Your task to perform on an android device: Show me the best rated power washer on Home Depot. Image 0: 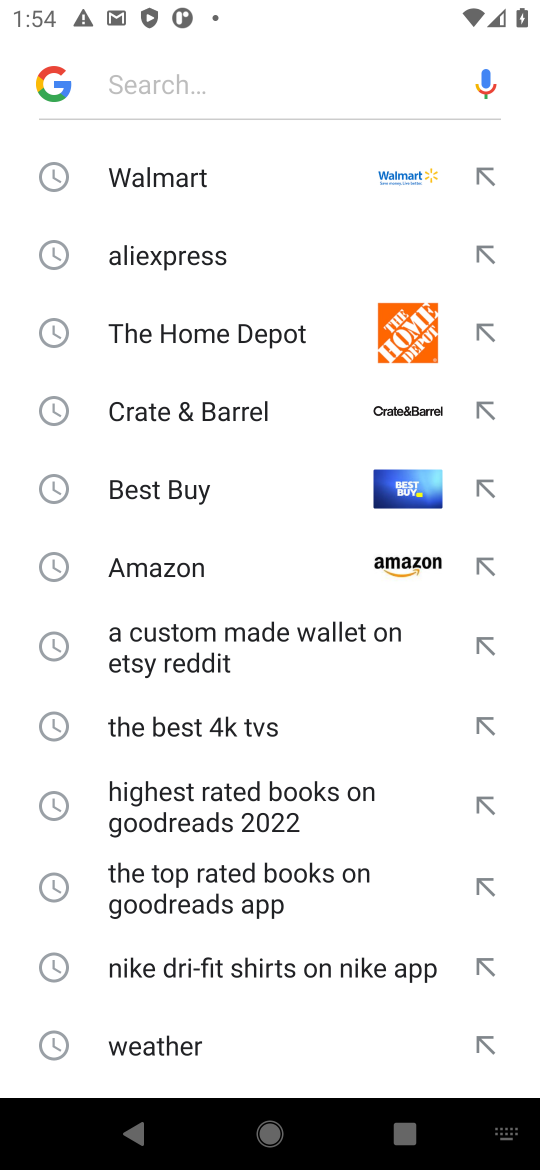
Step 0: press home button
Your task to perform on an android device: Show me the best rated power washer on Home Depot. Image 1: 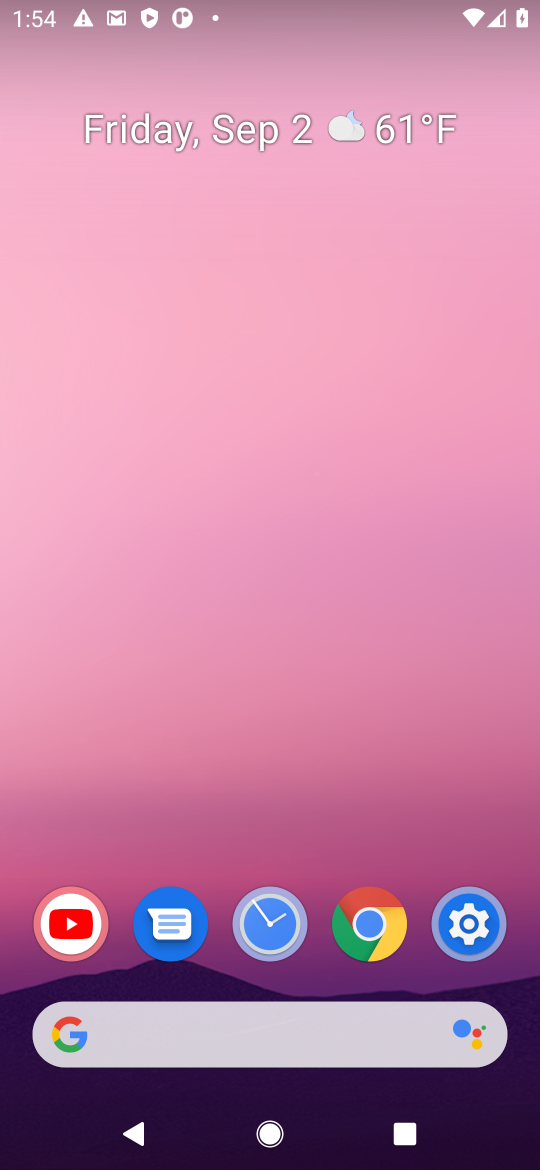
Step 1: click (385, 1028)
Your task to perform on an android device: Show me the best rated power washer on Home Depot. Image 2: 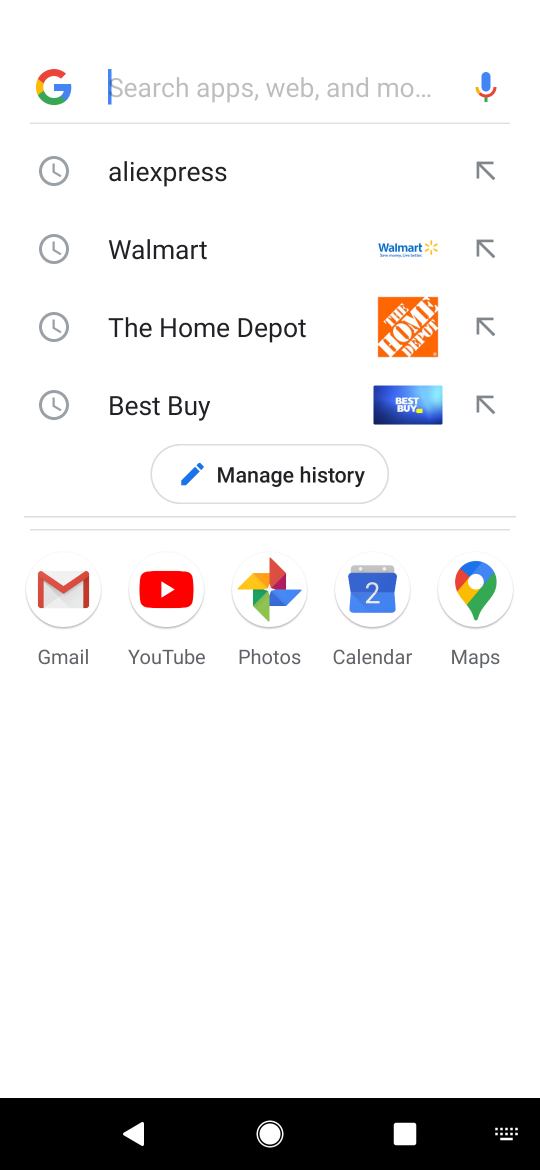
Step 2: press enter
Your task to perform on an android device: Show me the best rated power washer on Home Depot. Image 3: 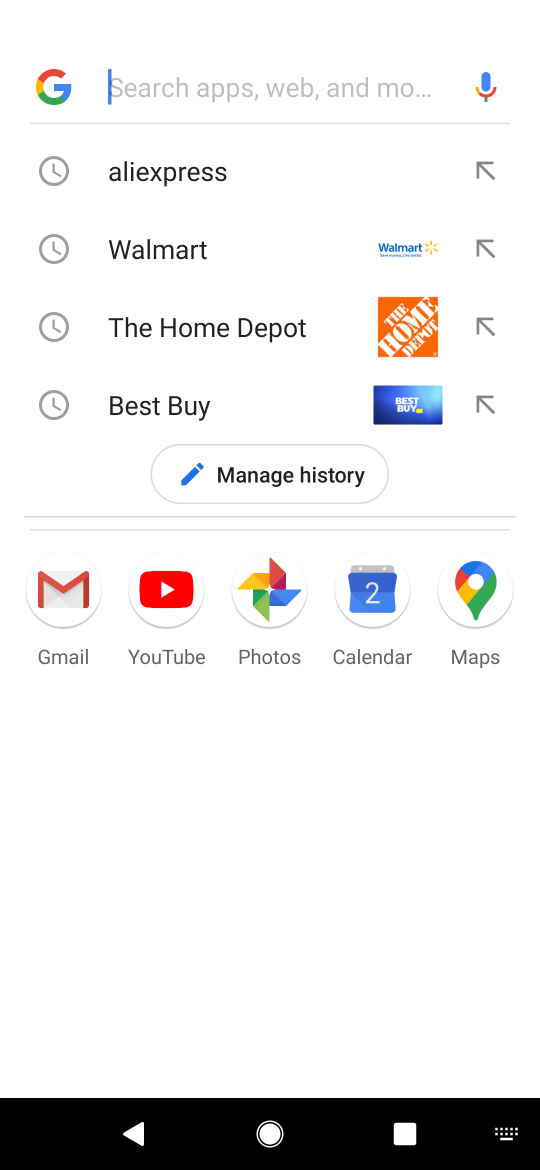
Step 3: type "home depot"
Your task to perform on an android device: Show me the best rated power washer on Home Depot. Image 4: 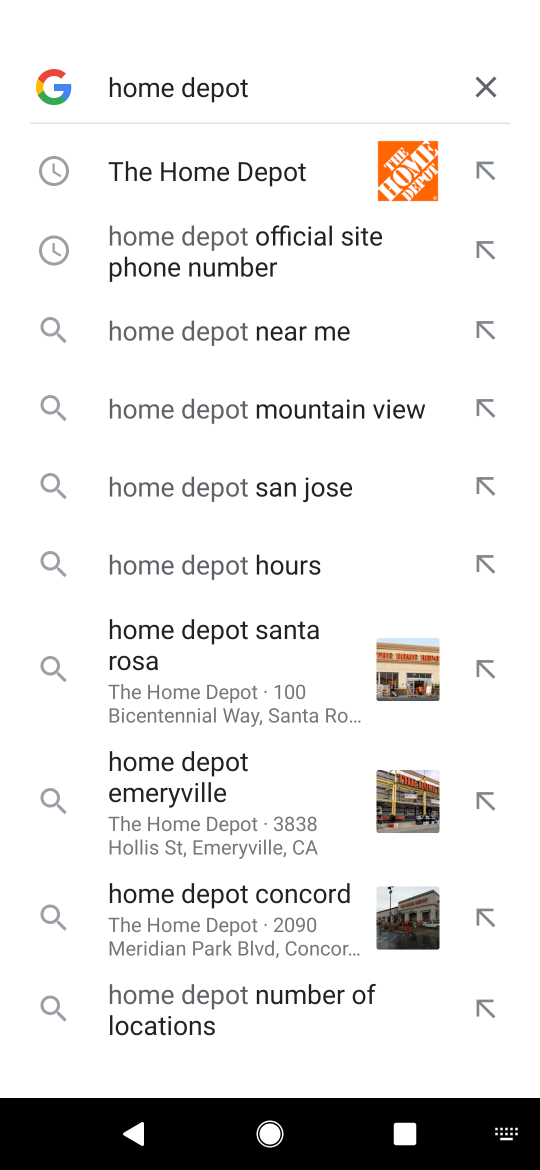
Step 4: click (247, 171)
Your task to perform on an android device: Show me the best rated power washer on Home Depot. Image 5: 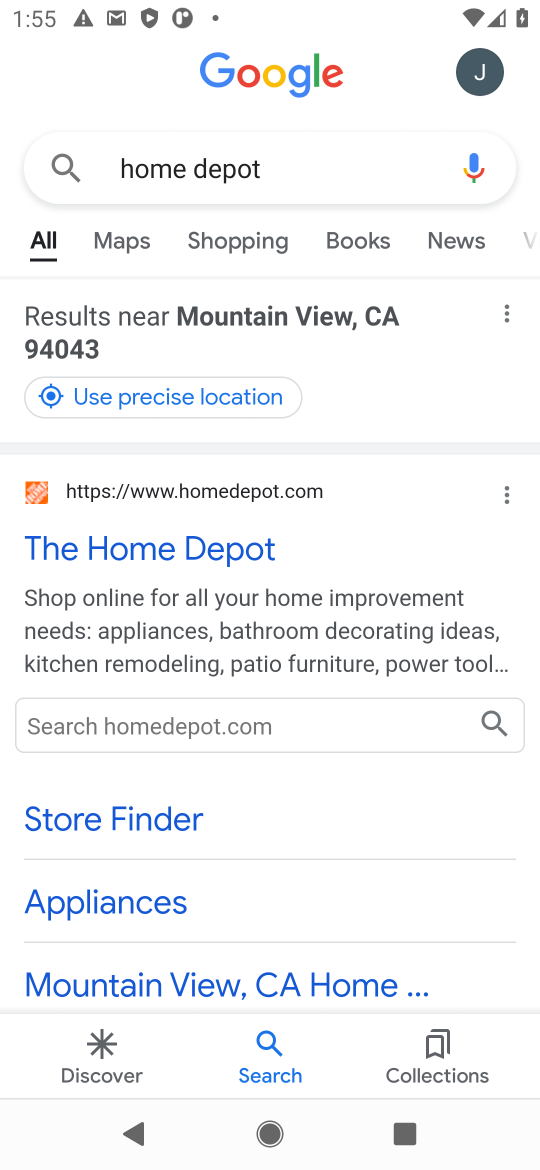
Step 5: click (216, 544)
Your task to perform on an android device: Show me the best rated power washer on Home Depot. Image 6: 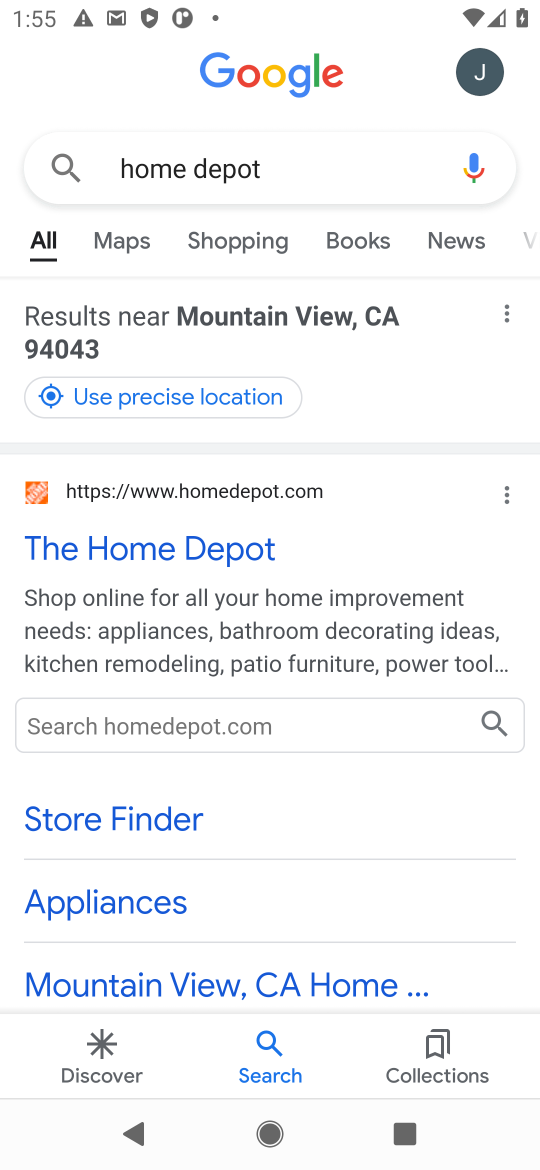
Step 6: click (216, 544)
Your task to perform on an android device: Show me the best rated power washer on Home Depot. Image 7: 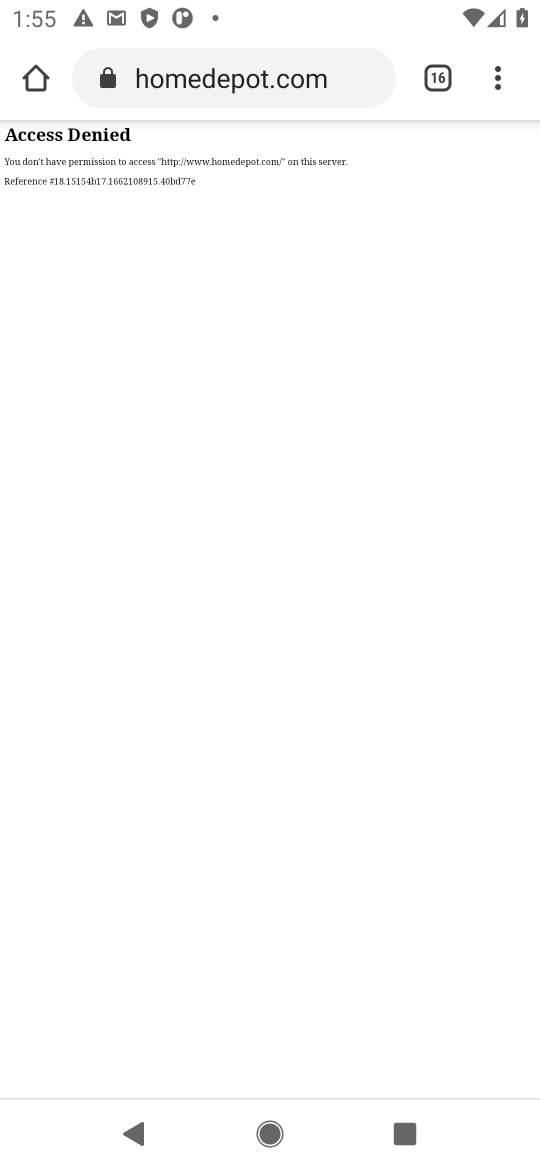
Step 7: task complete